Your task to perform on an android device: stop showing notifications on the lock screen Image 0: 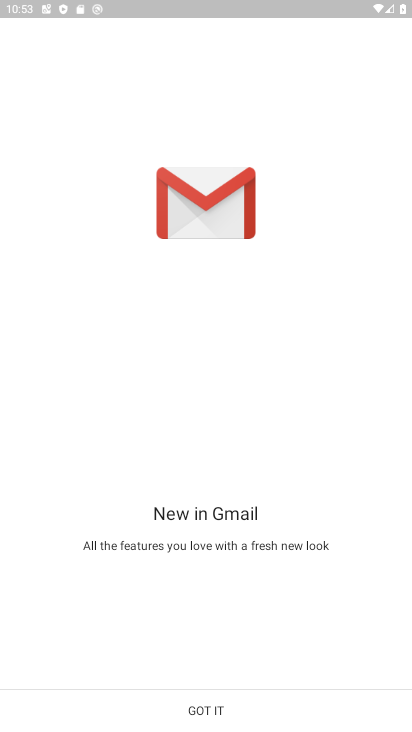
Step 0: press home button
Your task to perform on an android device: stop showing notifications on the lock screen Image 1: 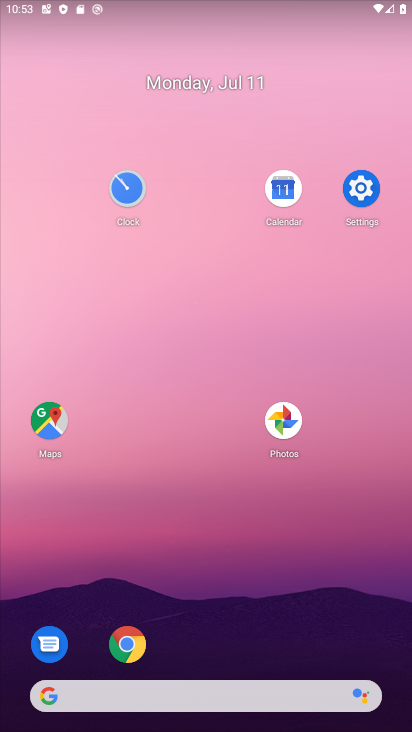
Step 1: click (367, 191)
Your task to perform on an android device: stop showing notifications on the lock screen Image 2: 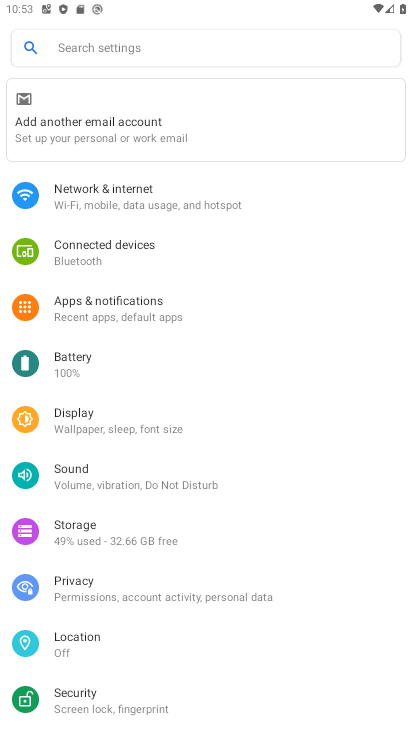
Step 2: click (104, 298)
Your task to perform on an android device: stop showing notifications on the lock screen Image 3: 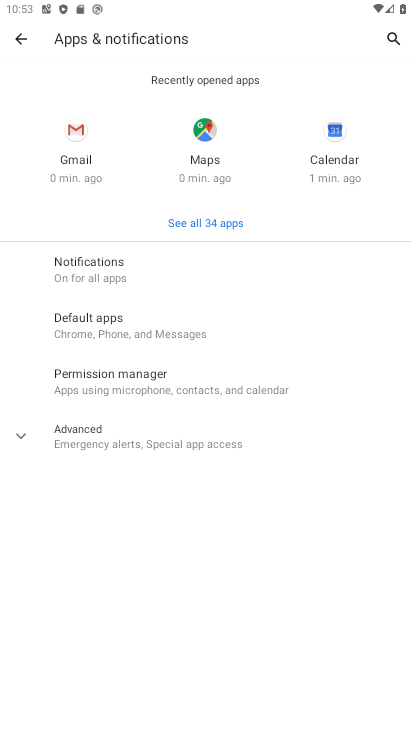
Step 3: click (110, 441)
Your task to perform on an android device: stop showing notifications on the lock screen Image 4: 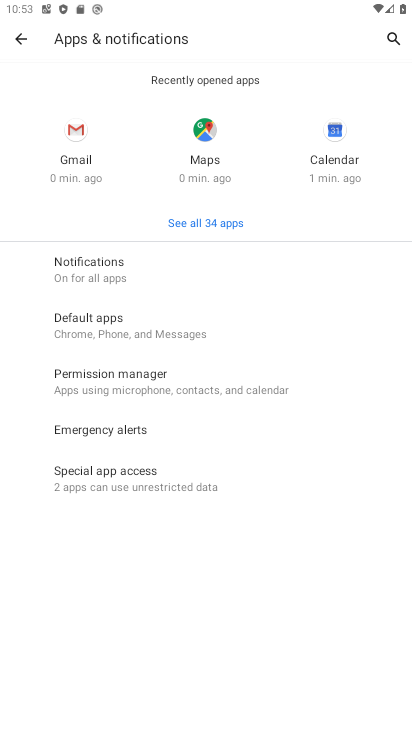
Step 4: click (90, 275)
Your task to perform on an android device: stop showing notifications on the lock screen Image 5: 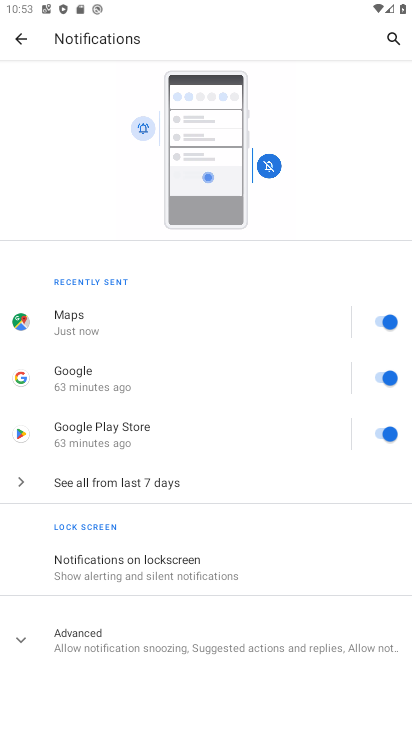
Step 5: click (129, 620)
Your task to perform on an android device: stop showing notifications on the lock screen Image 6: 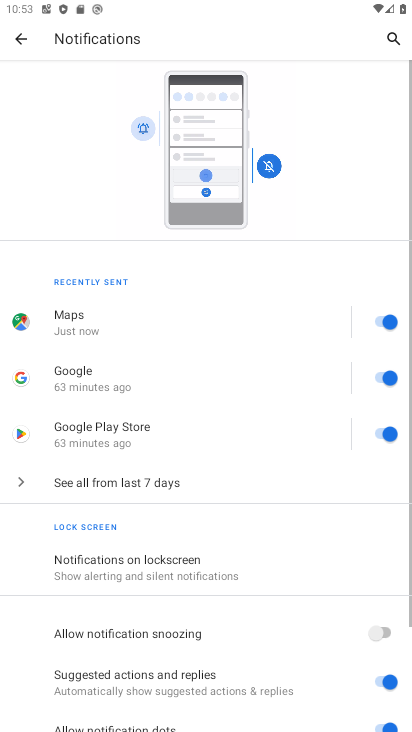
Step 6: click (146, 555)
Your task to perform on an android device: stop showing notifications on the lock screen Image 7: 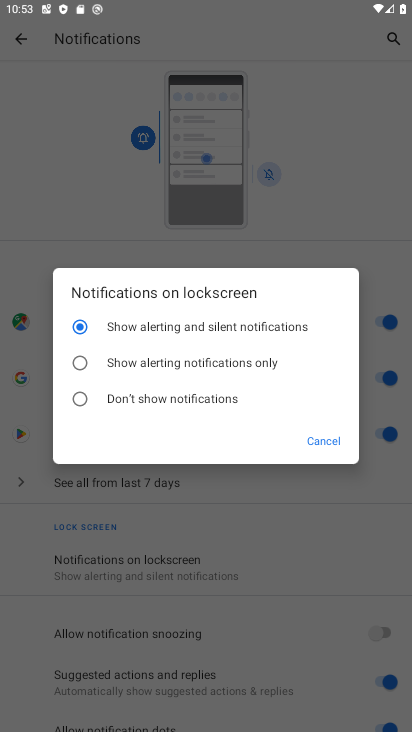
Step 7: click (183, 397)
Your task to perform on an android device: stop showing notifications on the lock screen Image 8: 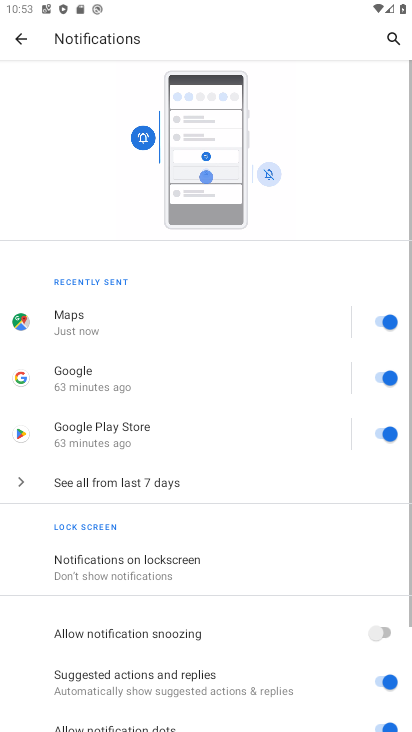
Step 8: task complete